Your task to perform on an android device: change notification settings in the gmail app Image 0: 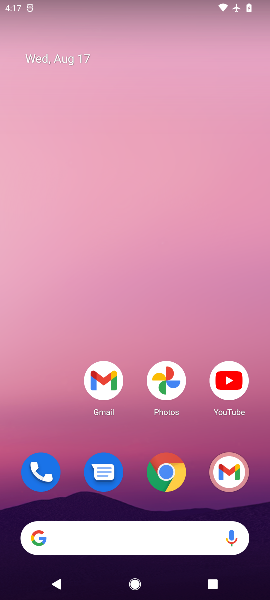
Step 0: click (225, 471)
Your task to perform on an android device: change notification settings in the gmail app Image 1: 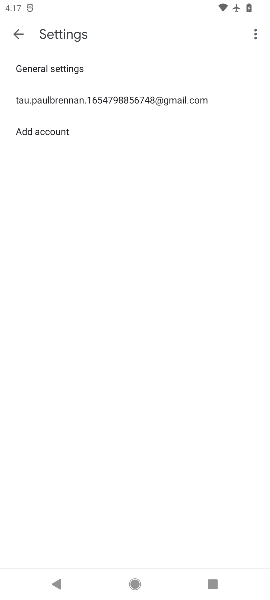
Step 1: click (60, 62)
Your task to perform on an android device: change notification settings in the gmail app Image 2: 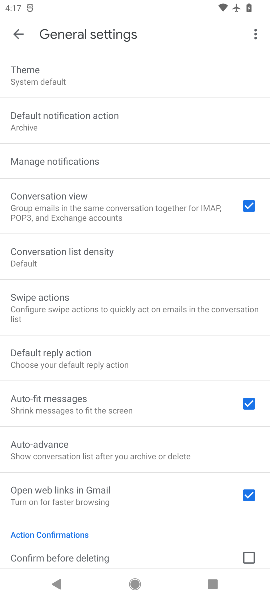
Step 2: click (90, 120)
Your task to perform on an android device: change notification settings in the gmail app Image 3: 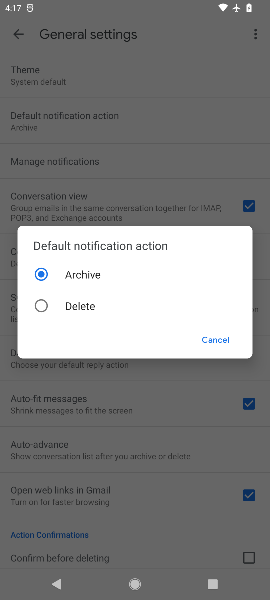
Step 3: click (218, 332)
Your task to perform on an android device: change notification settings in the gmail app Image 4: 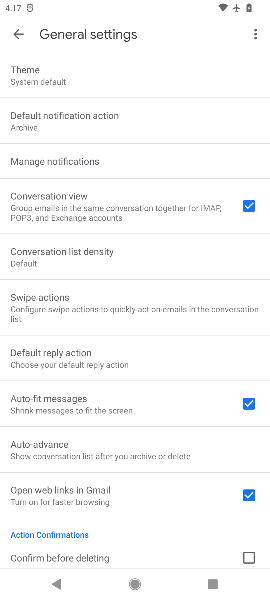
Step 4: click (74, 118)
Your task to perform on an android device: change notification settings in the gmail app Image 5: 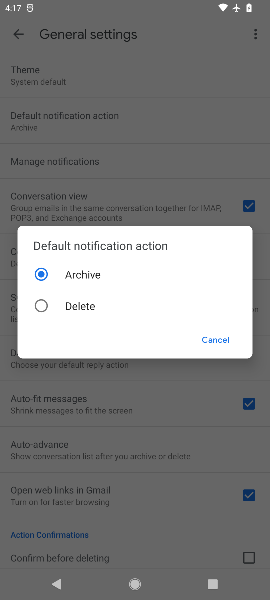
Step 5: click (217, 337)
Your task to perform on an android device: change notification settings in the gmail app Image 6: 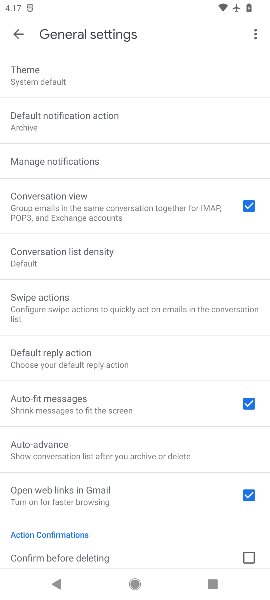
Step 6: click (82, 160)
Your task to perform on an android device: change notification settings in the gmail app Image 7: 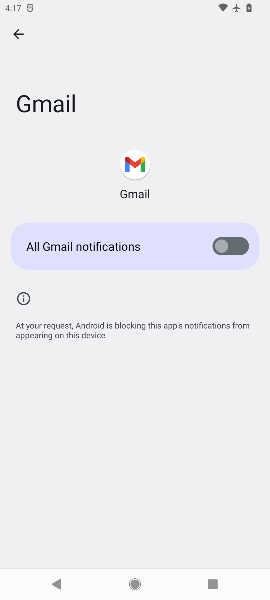
Step 7: click (234, 246)
Your task to perform on an android device: change notification settings in the gmail app Image 8: 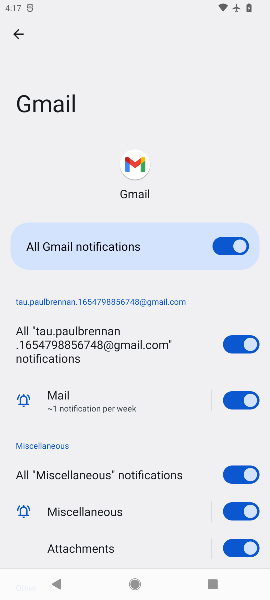
Step 8: task complete